Your task to perform on an android device: Search for "macbook air" on newegg.com, select the first entry, add it to the cart, then select checkout. Image 0: 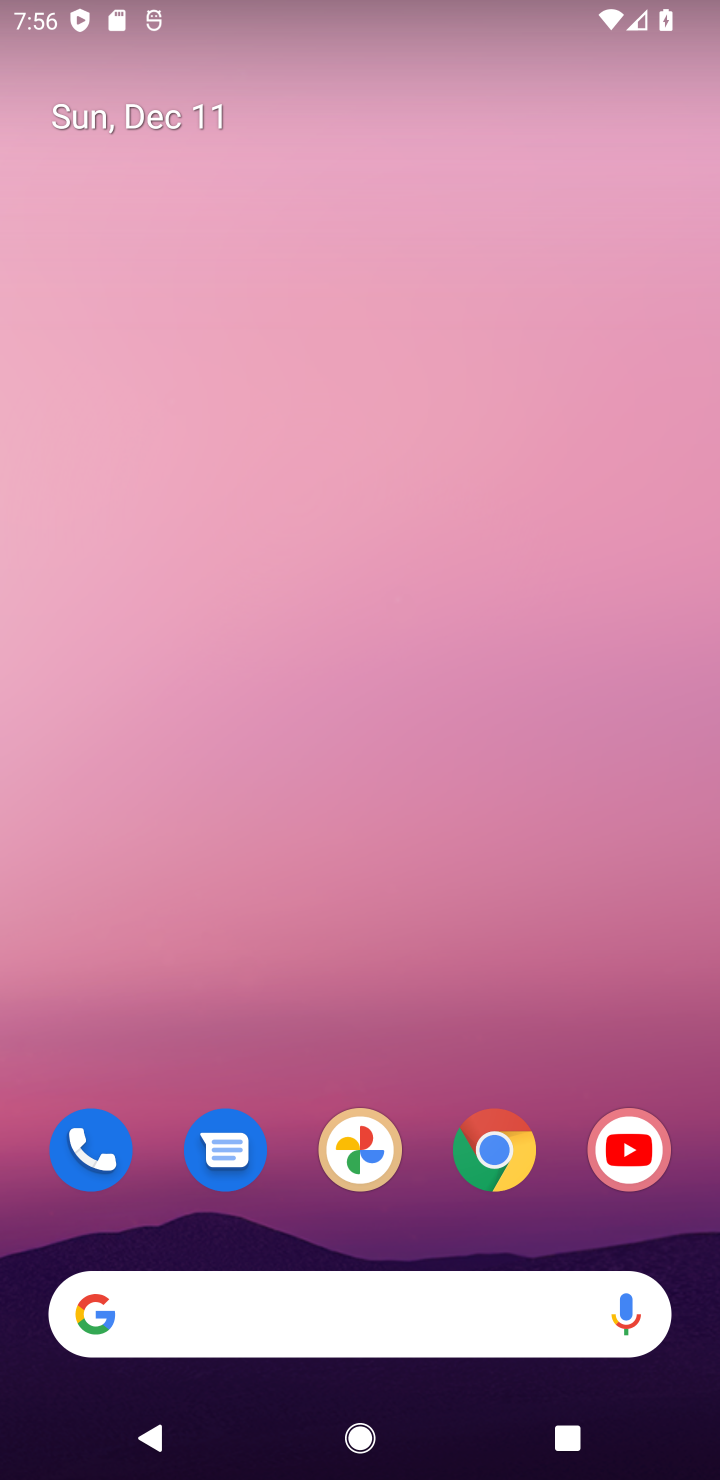
Step 0: click (496, 1151)
Your task to perform on an android device: Search for "macbook air" on newegg.com, select the first entry, add it to the cart, then select checkout. Image 1: 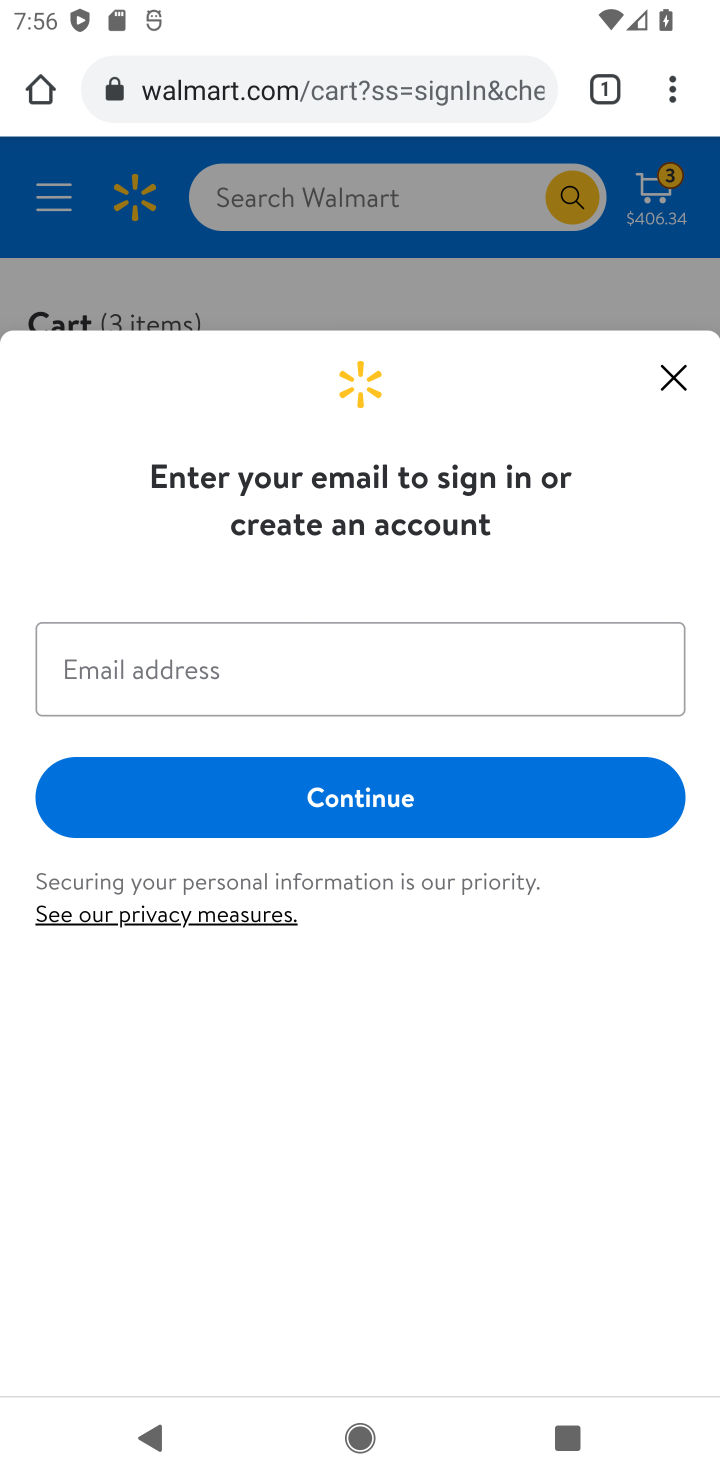
Step 1: click (476, 90)
Your task to perform on an android device: Search for "macbook air" on newegg.com, select the first entry, add it to the cart, then select checkout. Image 2: 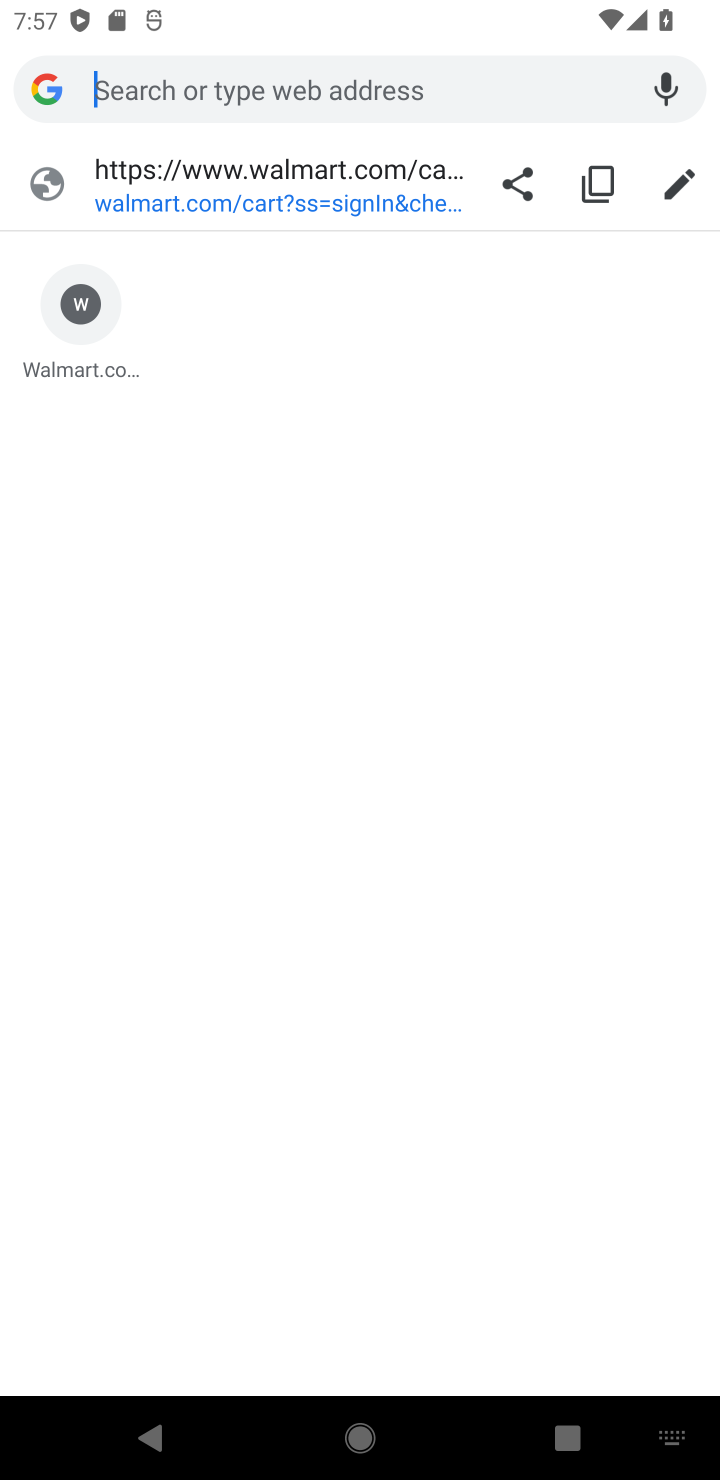
Step 2: type "newegg.com"
Your task to perform on an android device: Search for "macbook air" on newegg.com, select the first entry, add it to the cart, then select checkout. Image 3: 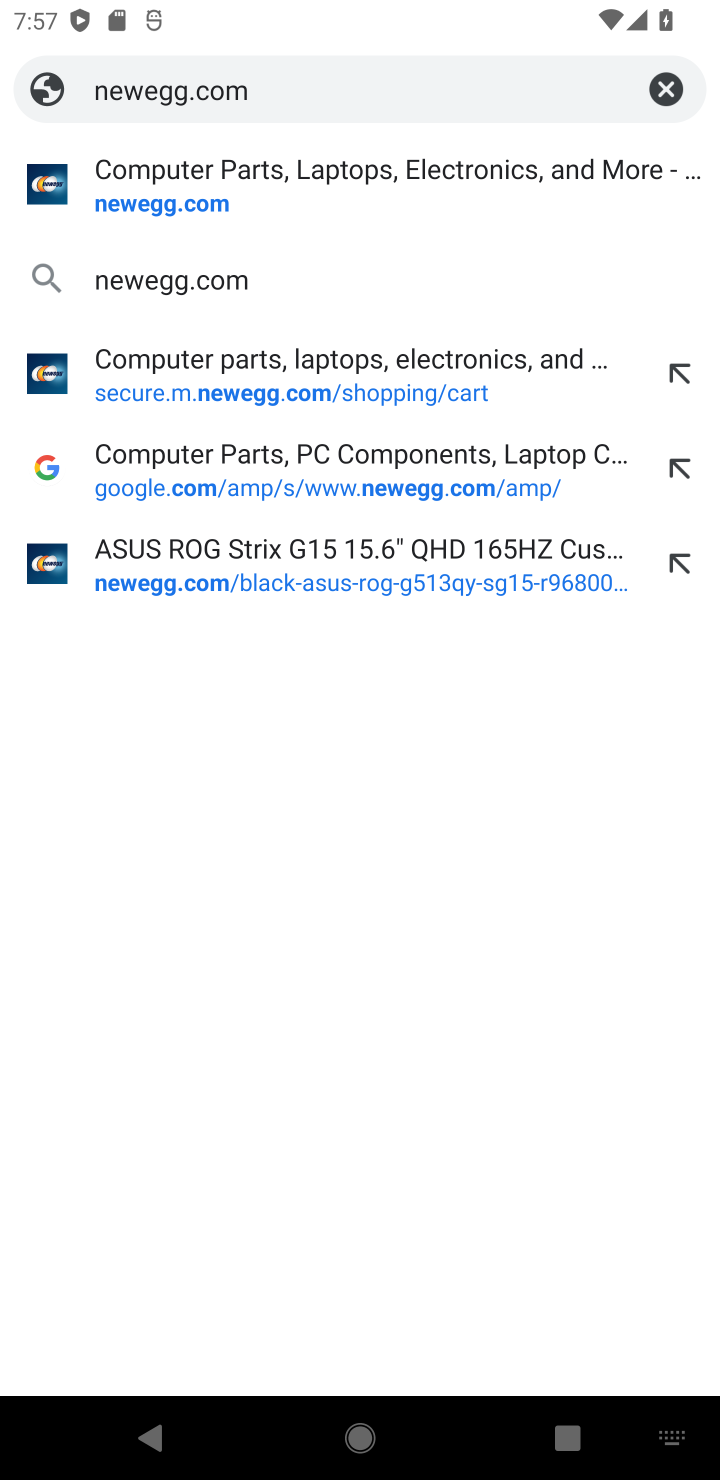
Step 3: click (170, 274)
Your task to perform on an android device: Search for "macbook air" on newegg.com, select the first entry, add it to the cart, then select checkout. Image 4: 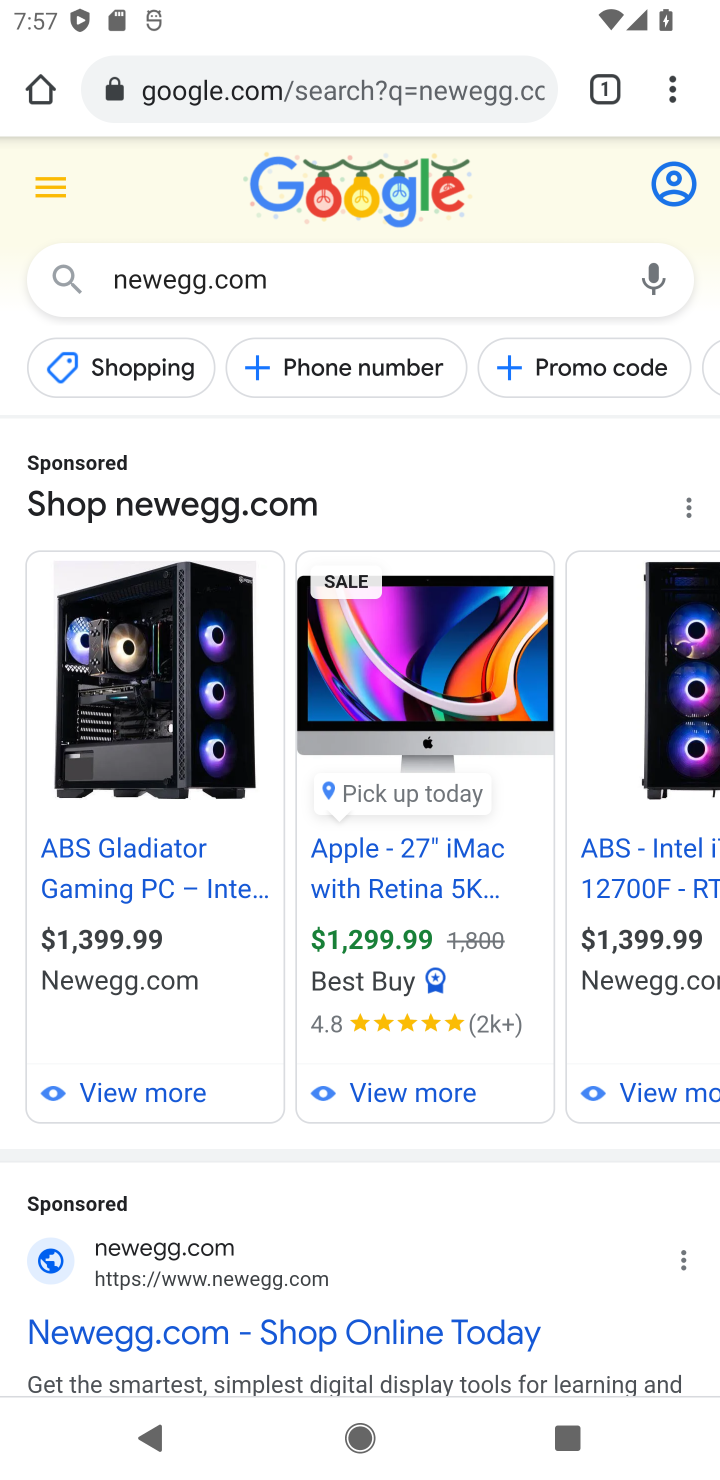
Step 4: drag from (365, 1219) to (543, 351)
Your task to perform on an android device: Search for "macbook air" on newegg.com, select the first entry, add it to the cart, then select checkout. Image 5: 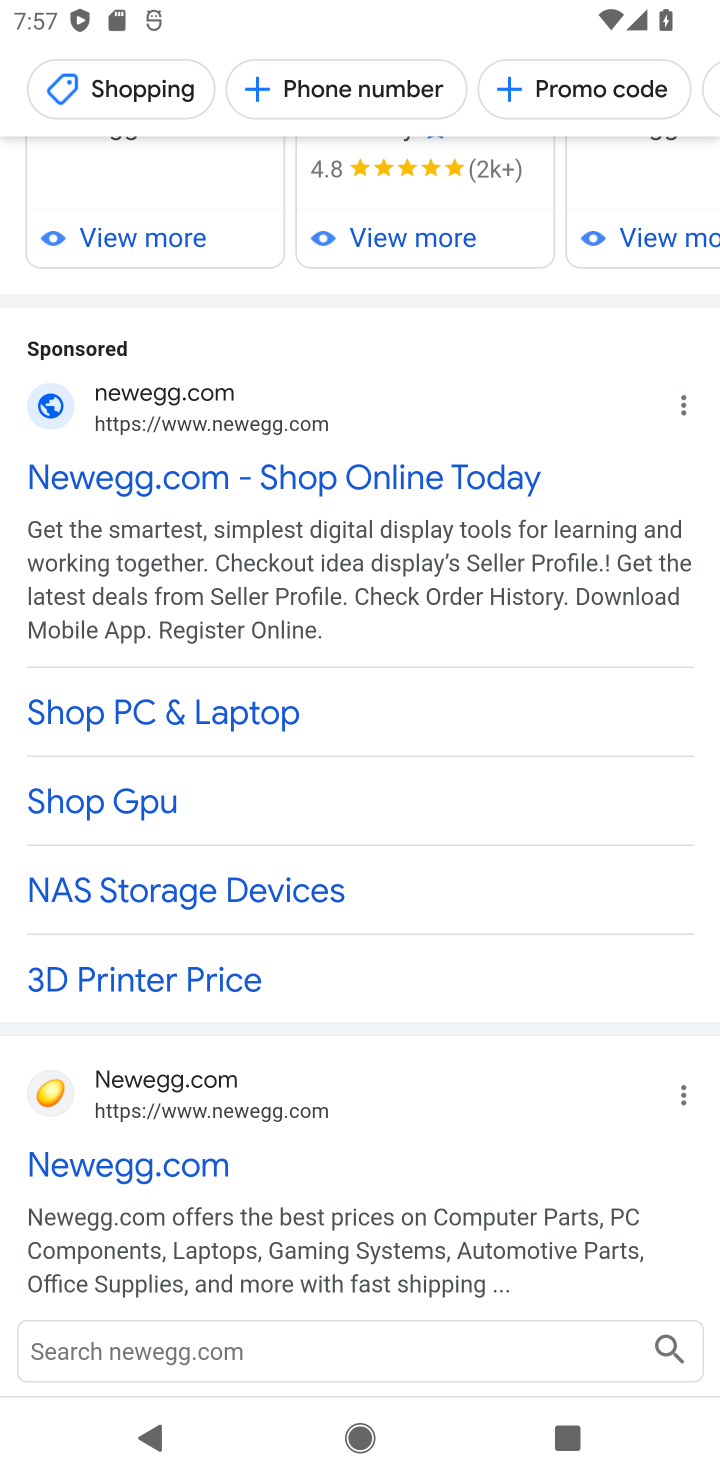
Step 5: click (225, 1170)
Your task to perform on an android device: Search for "macbook air" on newegg.com, select the first entry, add it to the cart, then select checkout. Image 6: 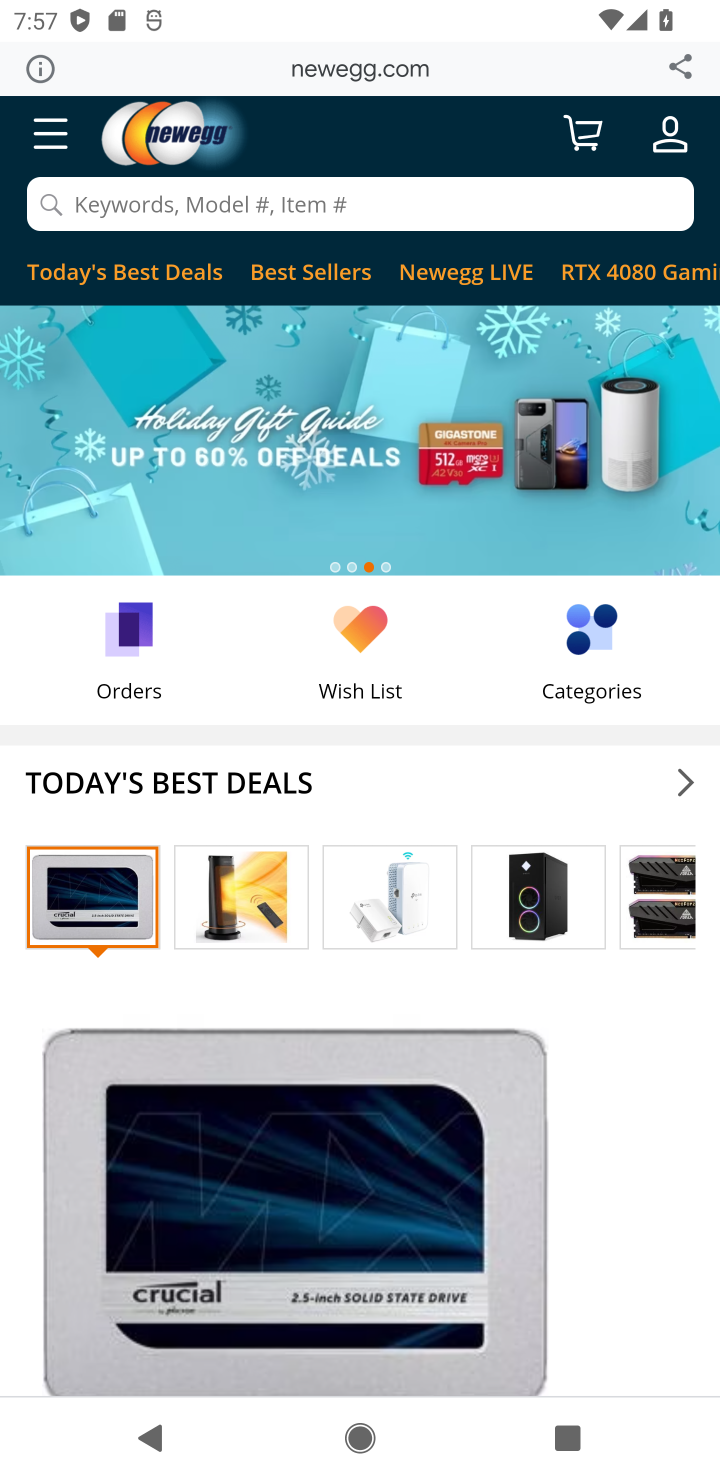
Step 6: click (470, 212)
Your task to perform on an android device: Search for "macbook air" on newegg.com, select the first entry, add it to the cart, then select checkout. Image 7: 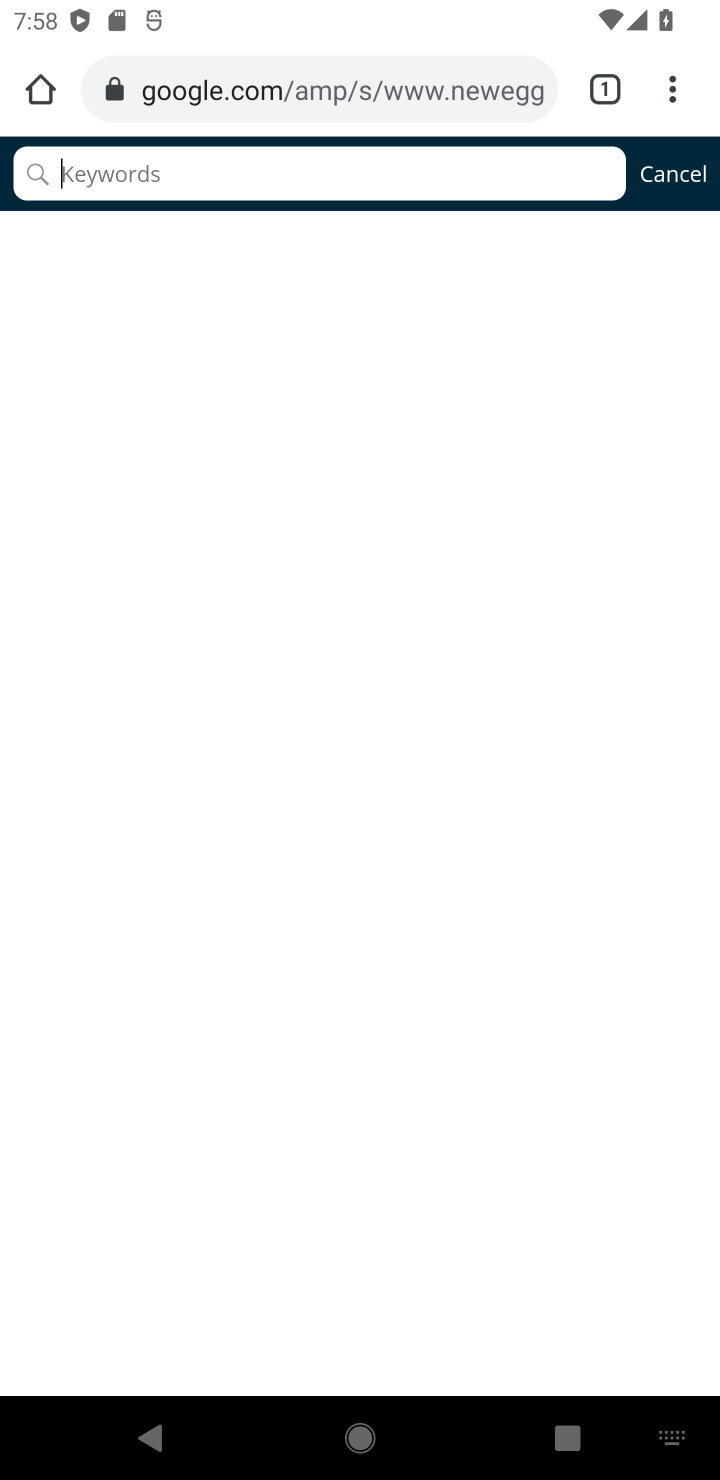
Step 7: type "macbook air"
Your task to perform on an android device: Search for "macbook air" on newegg.com, select the first entry, add it to the cart, then select checkout. Image 8: 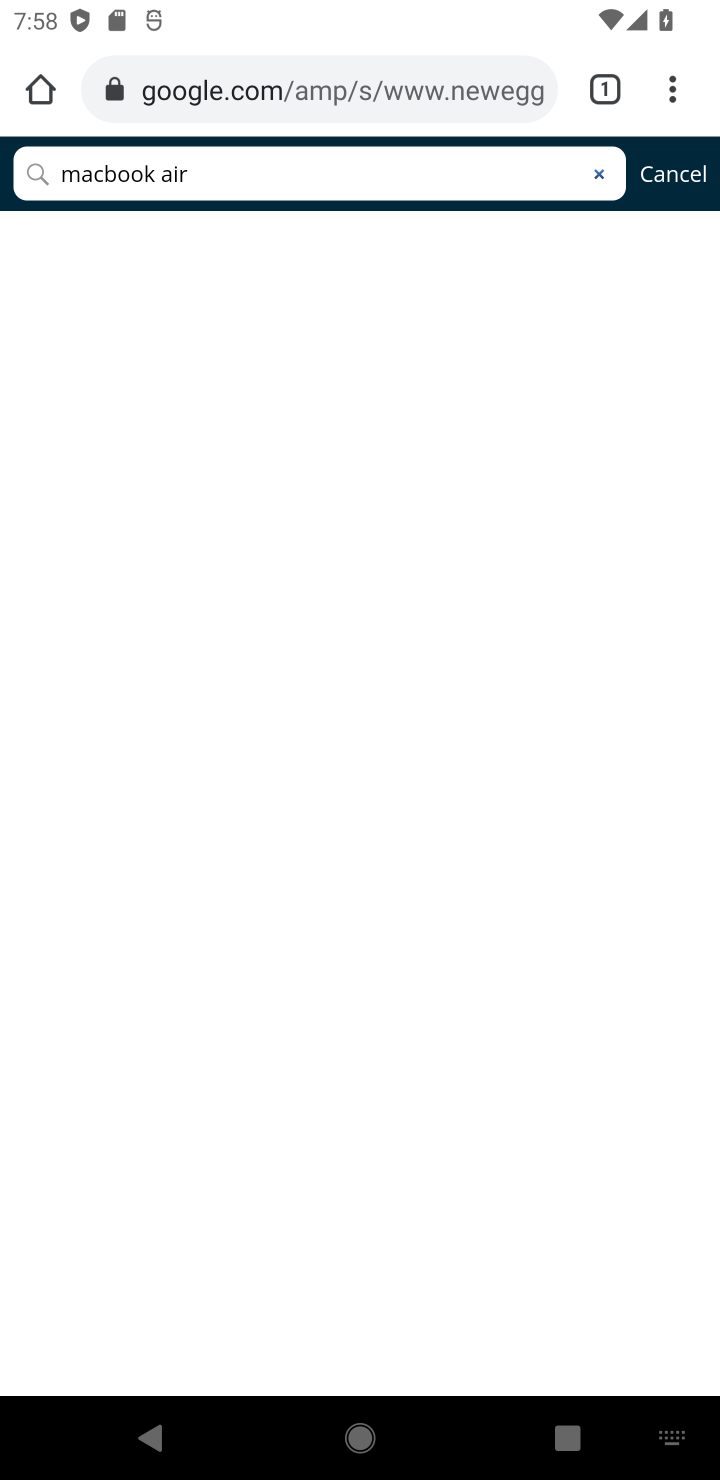
Step 8: click (34, 178)
Your task to perform on an android device: Search for "macbook air" on newegg.com, select the first entry, add it to the cart, then select checkout. Image 9: 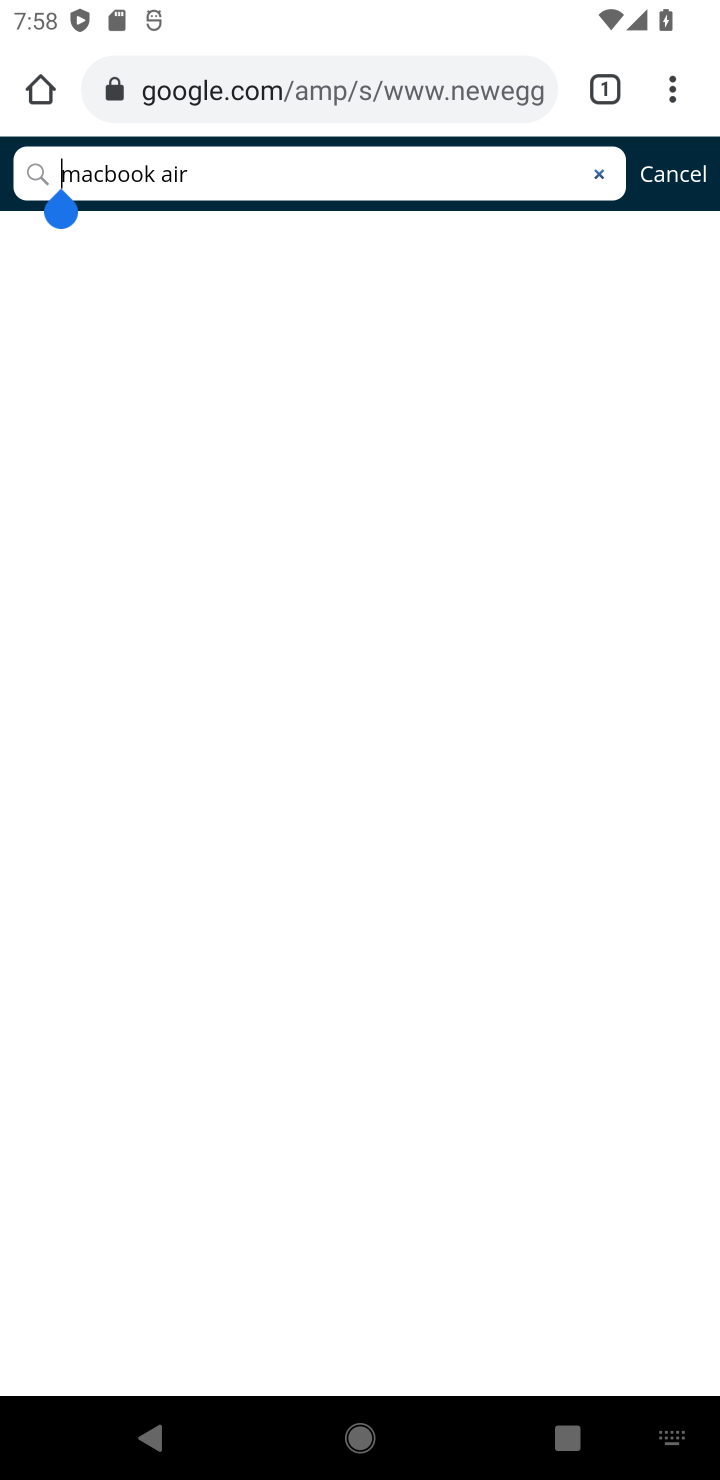
Step 9: click (29, 174)
Your task to perform on an android device: Search for "macbook air" on newegg.com, select the first entry, add it to the cart, then select checkout. Image 10: 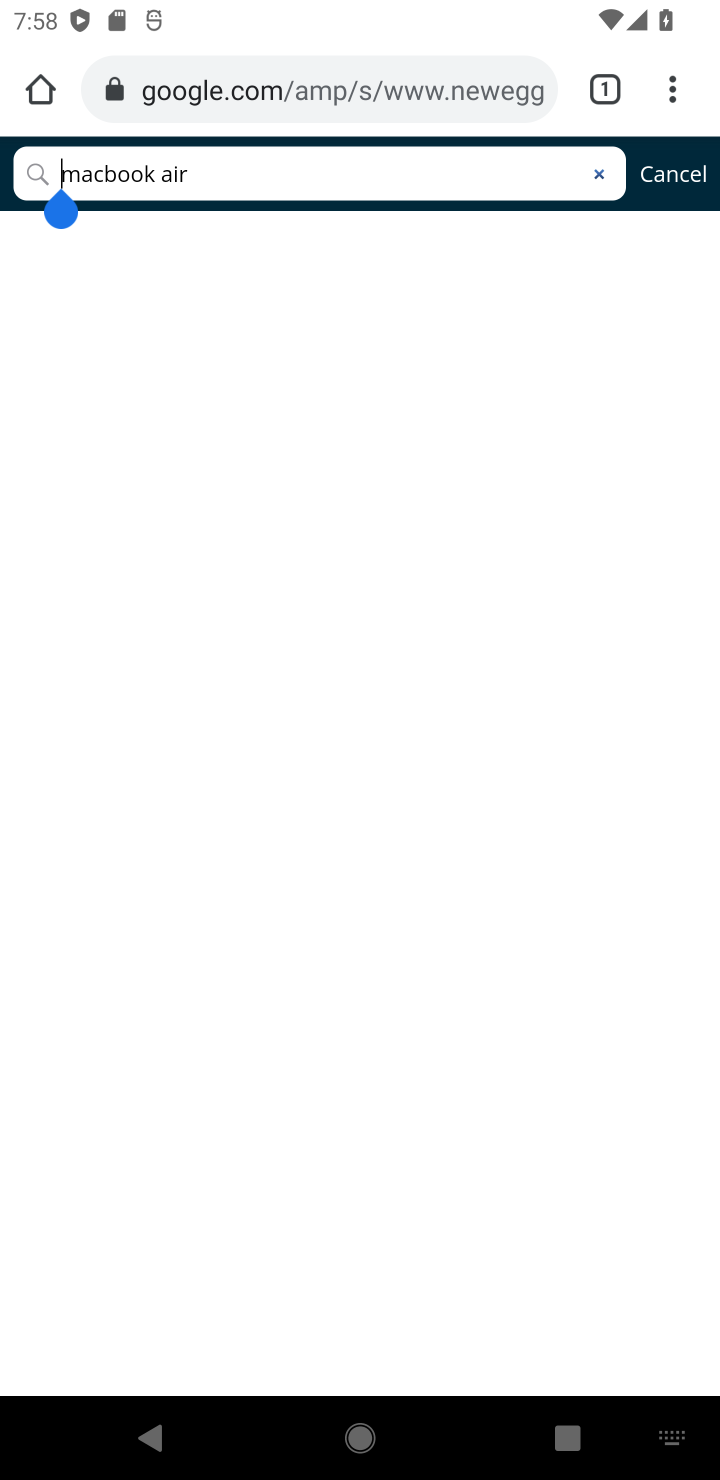
Step 10: click (29, 174)
Your task to perform on an android device: Search for "macbook air" on newegg.com, select the first entry, add it to the cart, then select checkout. Image 11: 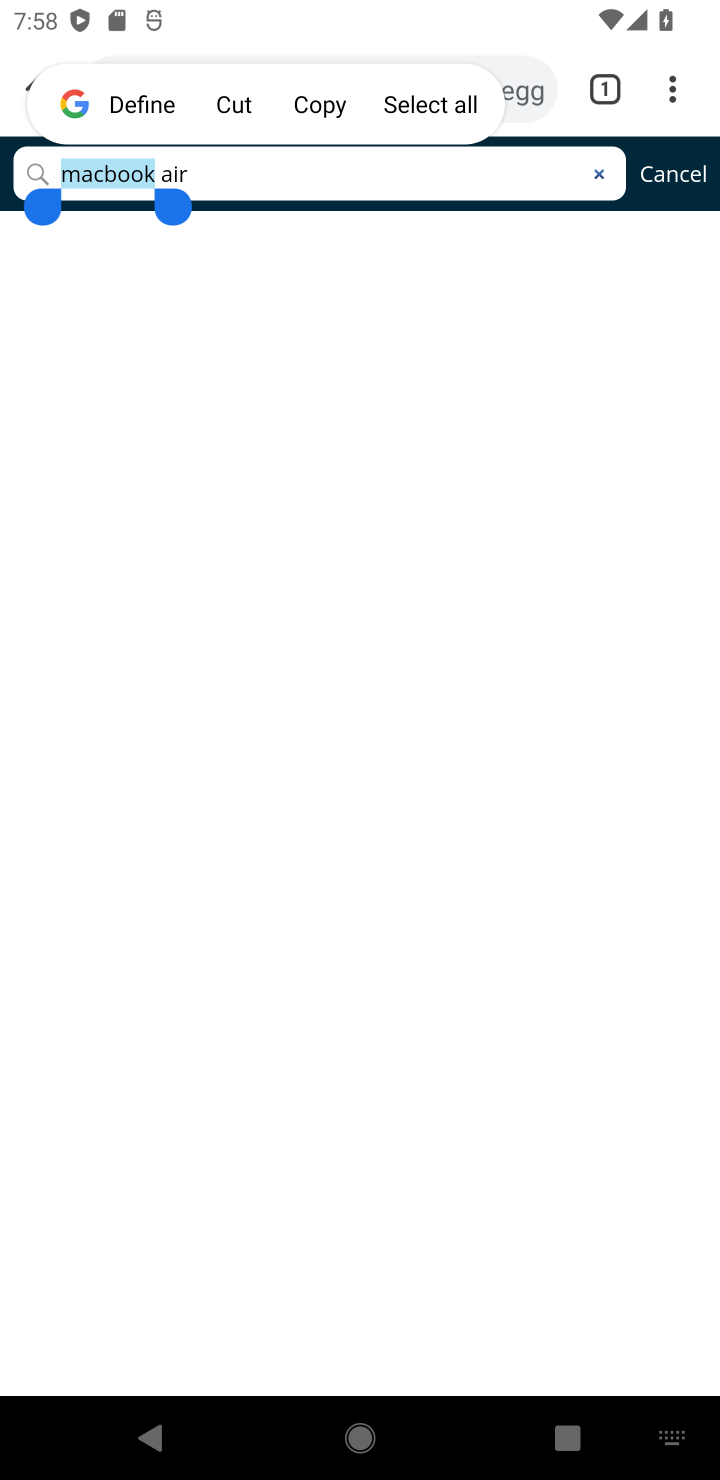
Step 11: click (37, 168)
Your task to perform on an android device: Search for "macbook air" on newegg.com, select the first entry, add it to the cart, then select checkout. Image 12: 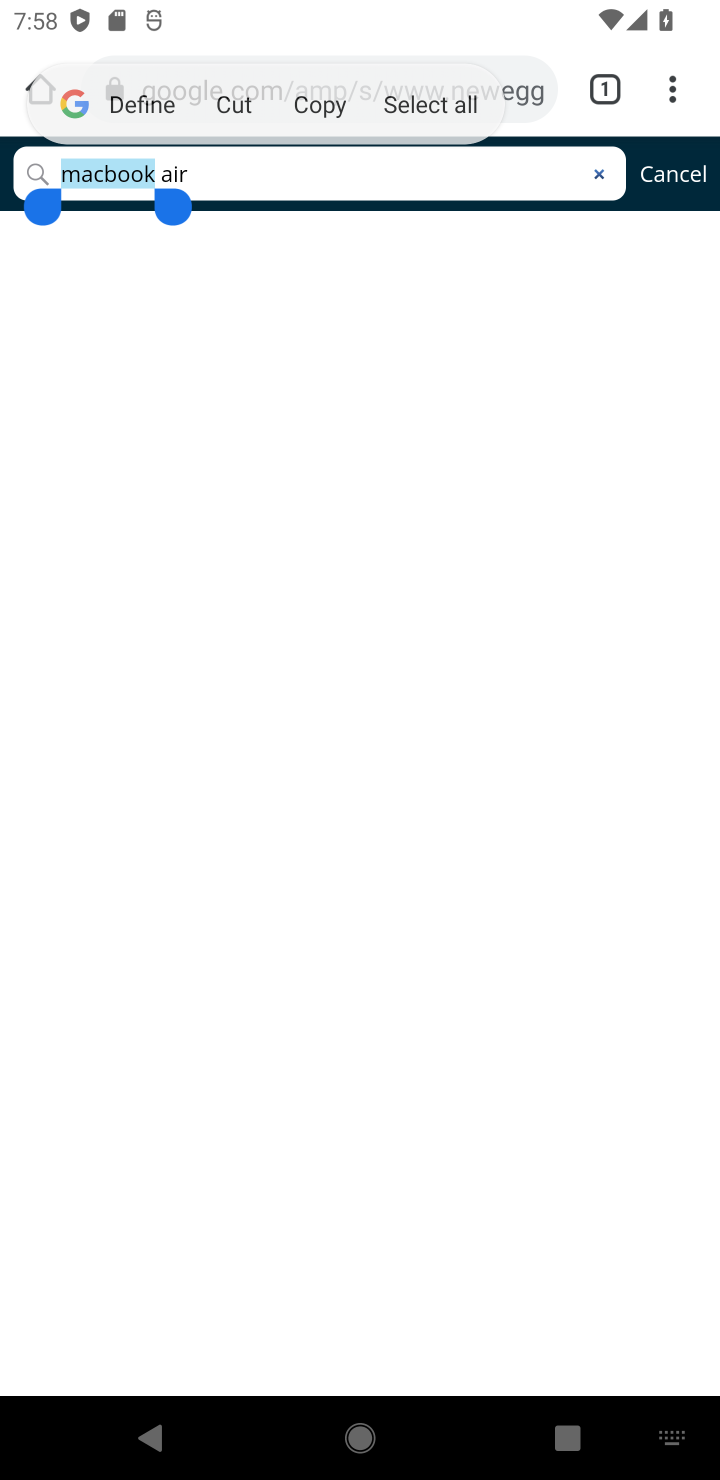
Step 12: click (37, 168)
Your task to perform on an android device: Search for "macbook air" on newegg.com, select the first entry, add it to the cart, then select checkout. Image 13: 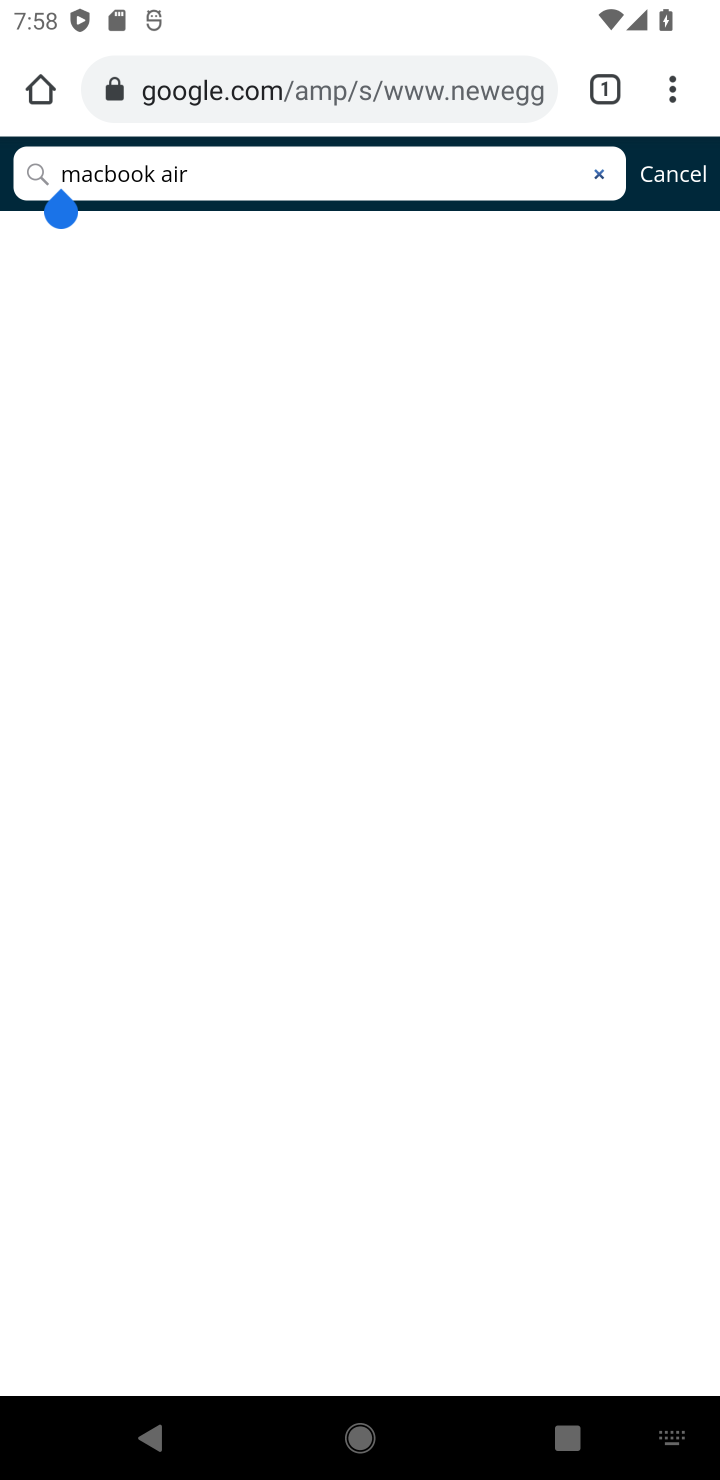
Step 13: click (37, 168)
Your task to perform on an android device: Search for "macbook air" on newegg.com, select the first entry, add it to the cart, then select checkout. Image 14: 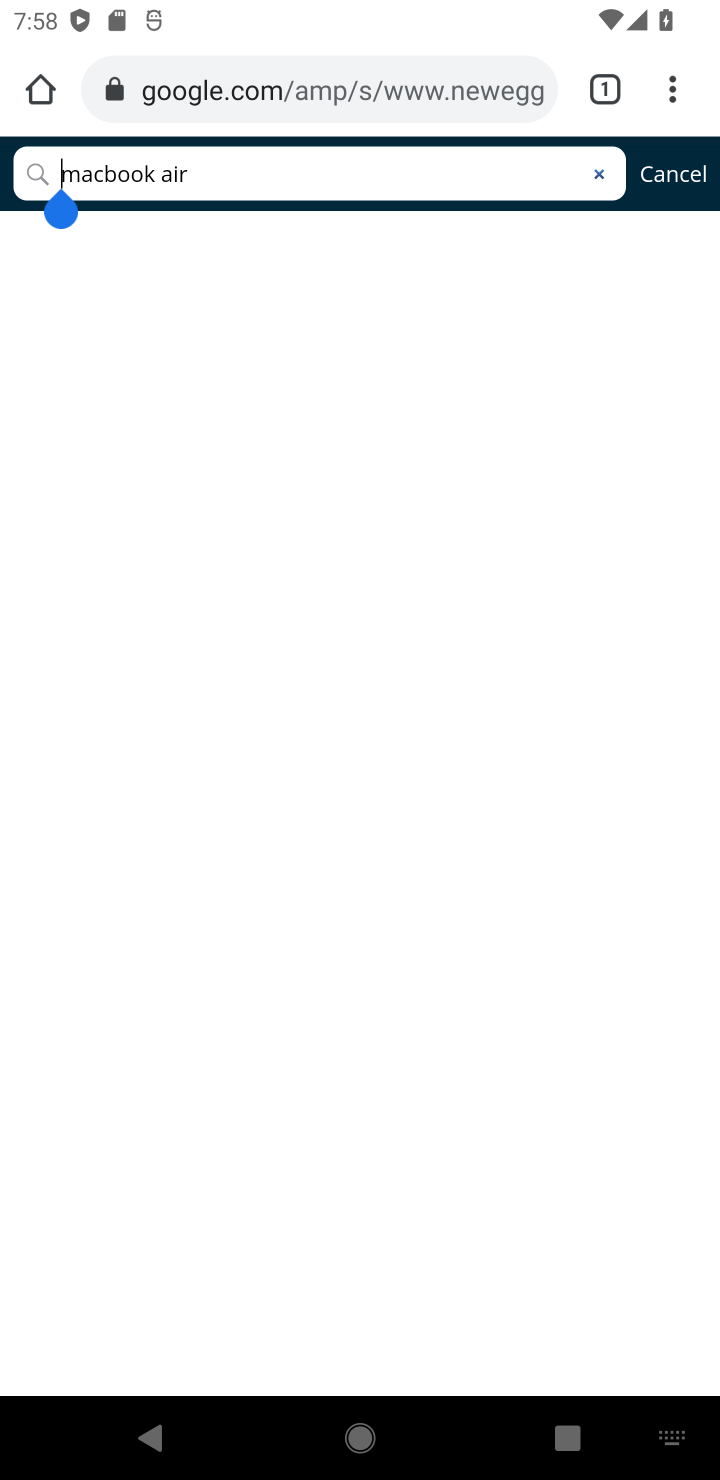
Step 14: click (218, 283)
Your task to perform on an android device: Search for "macbook air" on newegg.com, select the first entry, add it to the cart, then select checkout. Image 15: 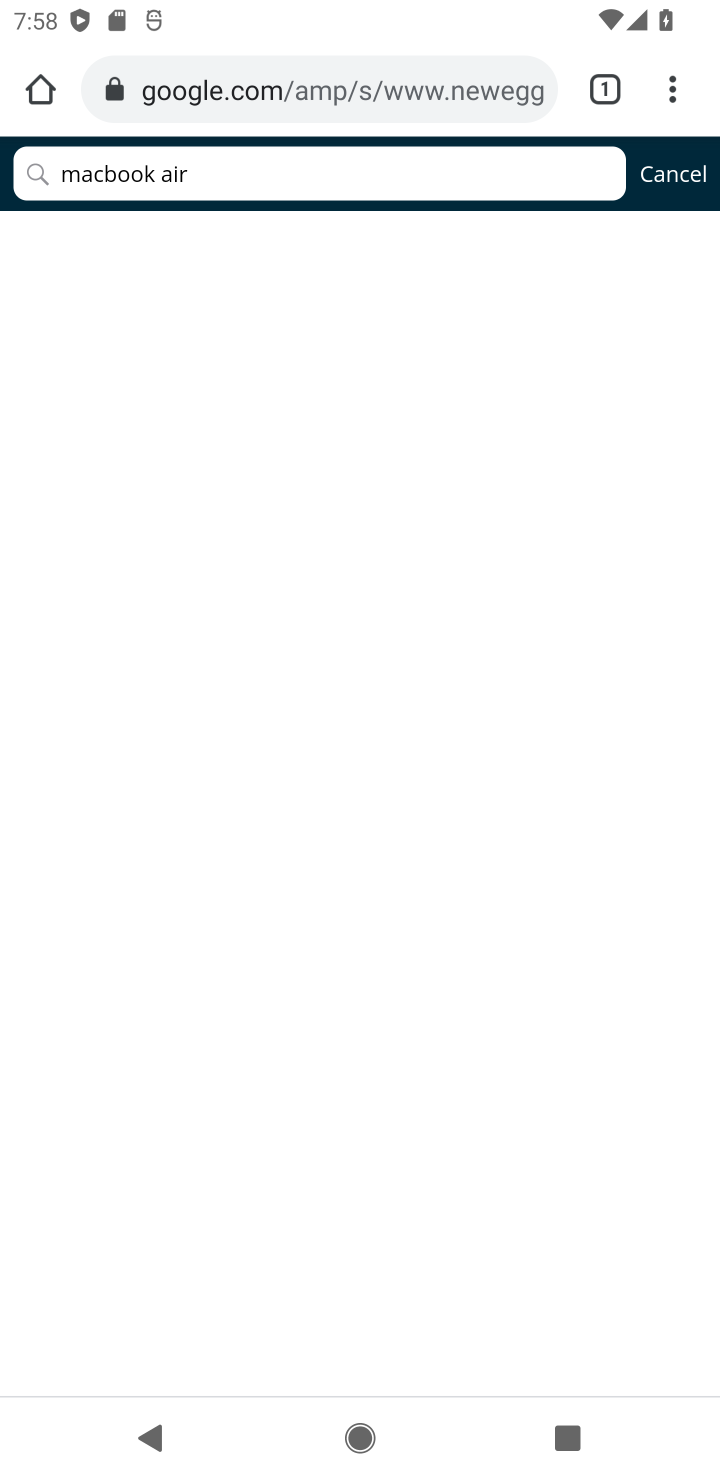
Step 15: click (659, 176)
Your task to perform on an android device: Search for "macbook air" on newegg.com, select the first entry, add it to the cart, then select checkout. Image 16: 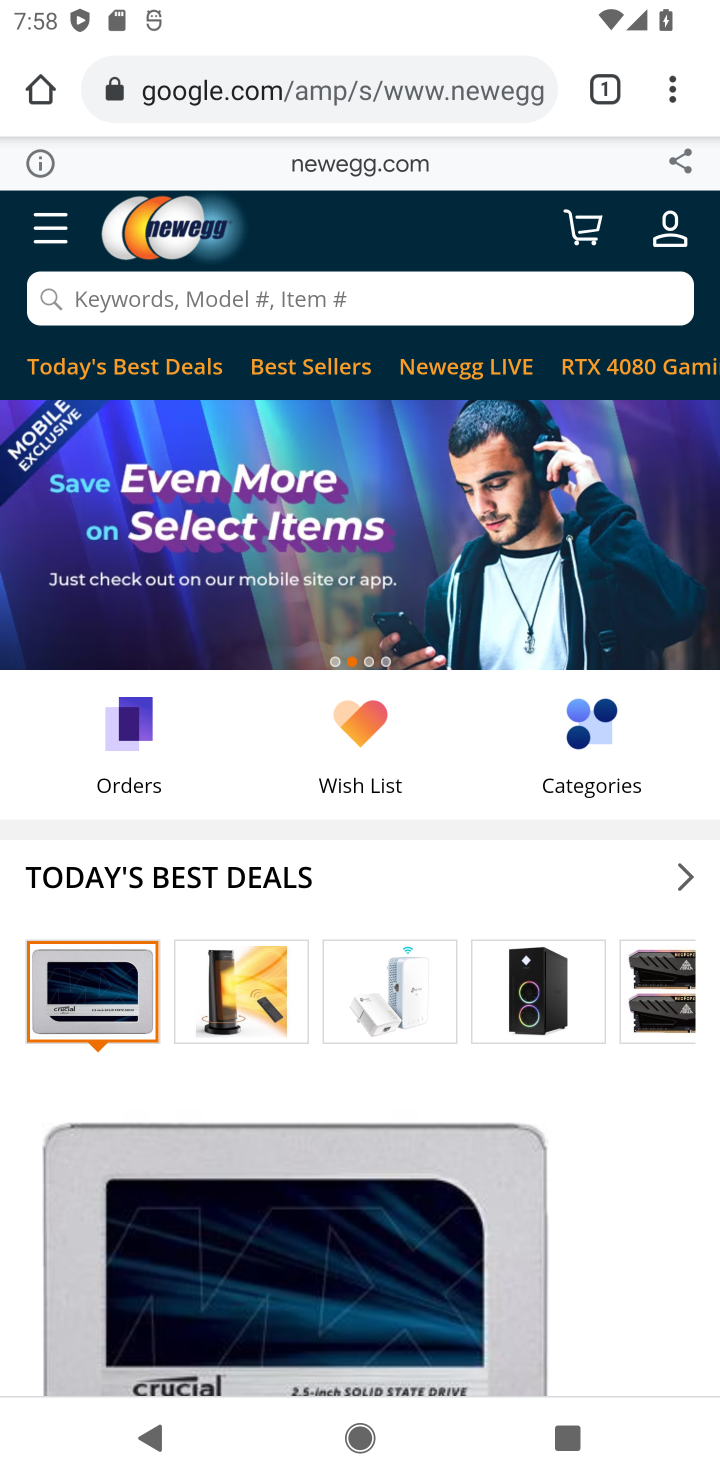
Step 16: click (358, 296)
Your task to perform on an android device: Search for "macbook air" on newegg.com, select the first entry, add it to the cart, then select checkout. Image 17: 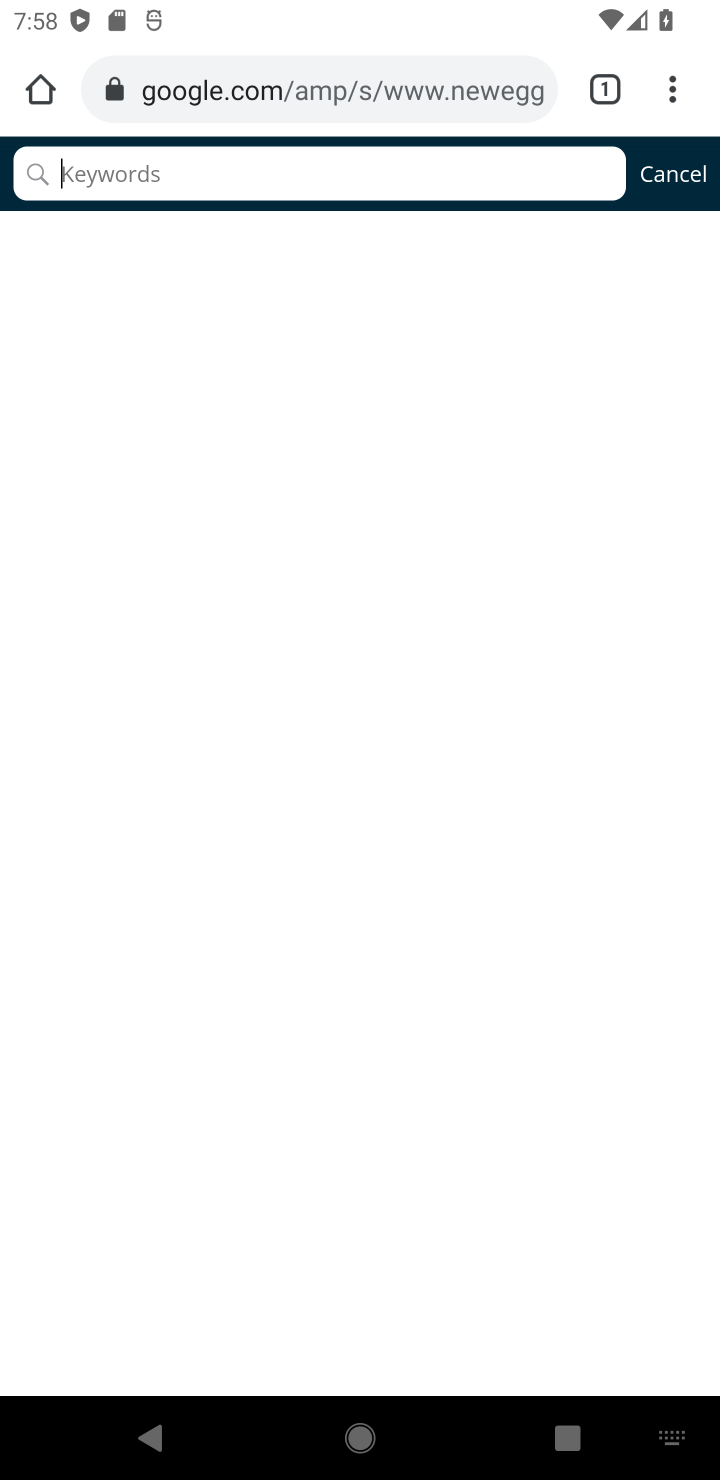
Step 17: type "macbook air"
Your task to perform on an android device: Search for "macbook air" on newegg.com, select the first entry, add it to the cart, then select checkout. Image 18: 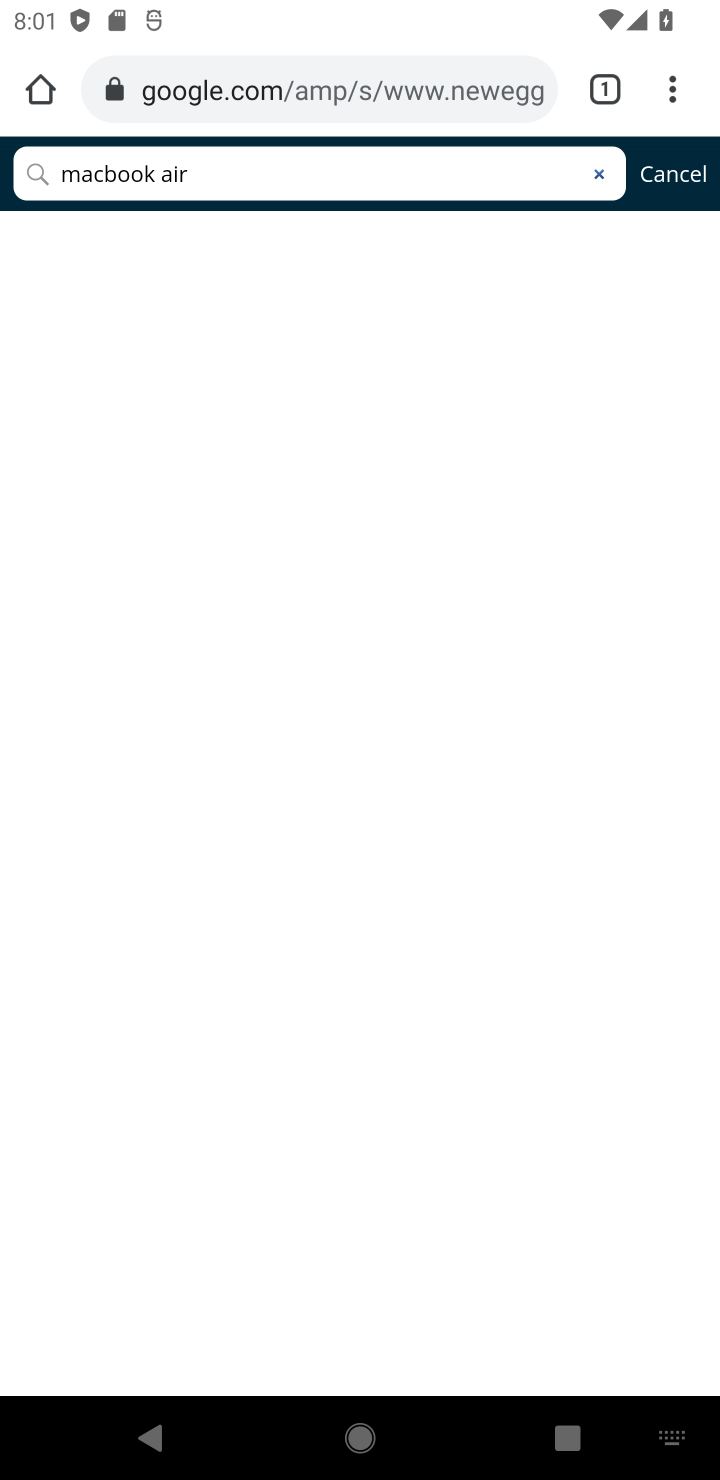
Step 18: task complete